Your task to perform on an android device: View the shopping cart on walmart. Add "macbook air" to the cart on walmart, then select checkout. Image 0: 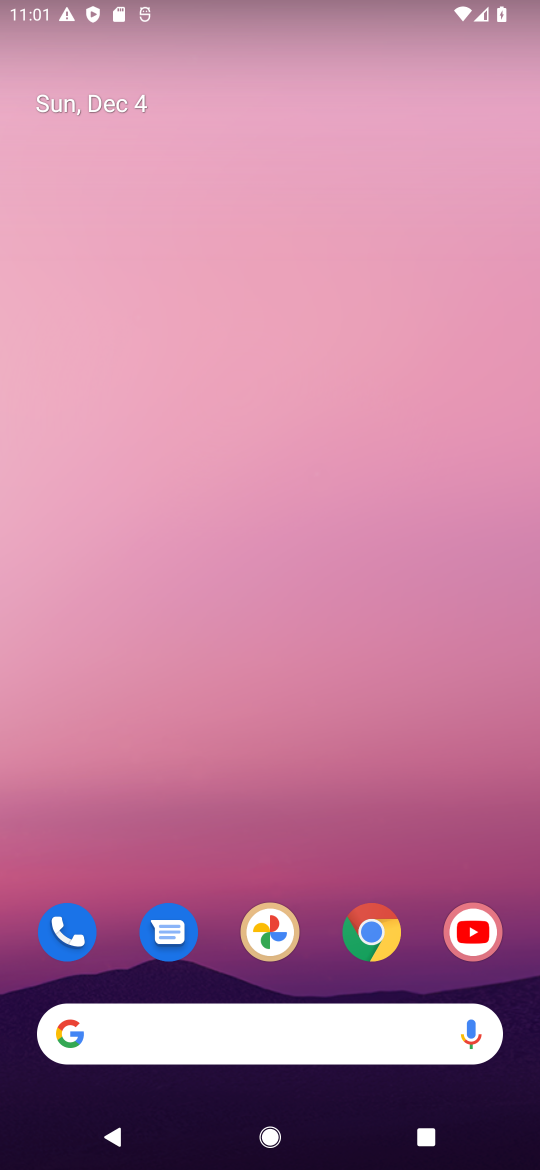
Step 0: click (372, 948)
Your task to perform on an android device: View the shopping cart on walmart. Add "macbook air" to the cart on walmart, then select checkout. Image 1: 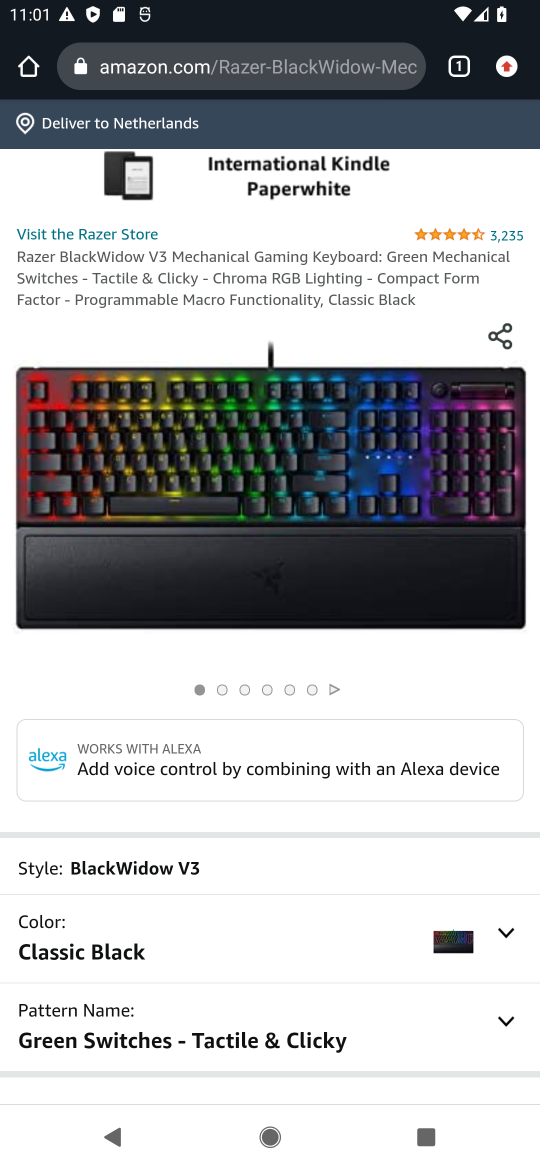
Step 1: click (256, 66)
Your task to perform on an android device: View the shopping cart on walmart. Add "macbook air" to the cart on walmart, then select checkout. Image 2: 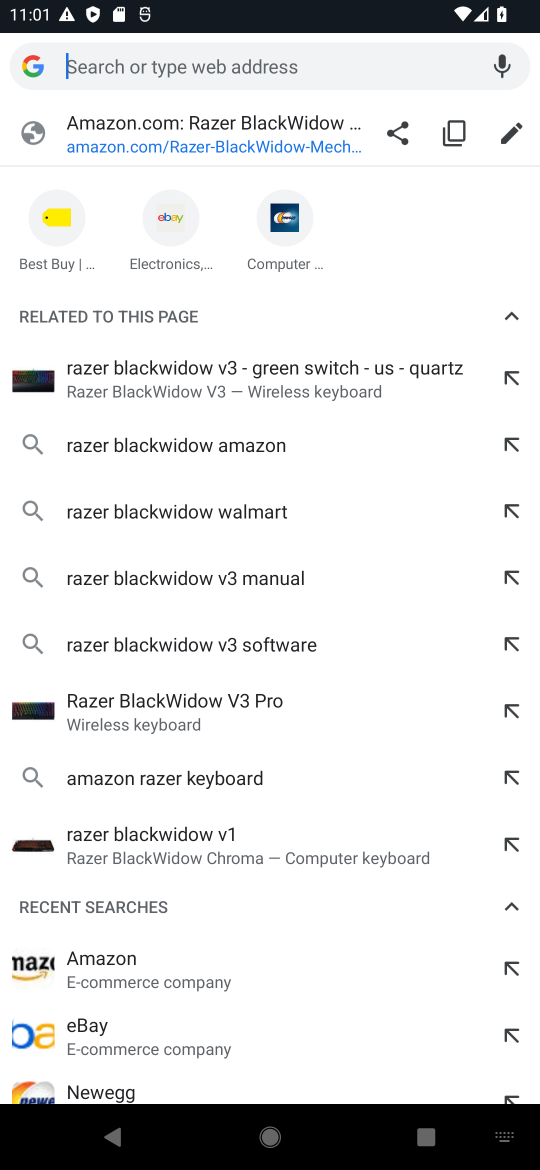
Step 2: drag from (190, 1035) to (218, 534)
Your task to perform on an android device: View the shopping cart on walmart. Add "macbook air" to the cart on walmart, then select checkout. Image 3: 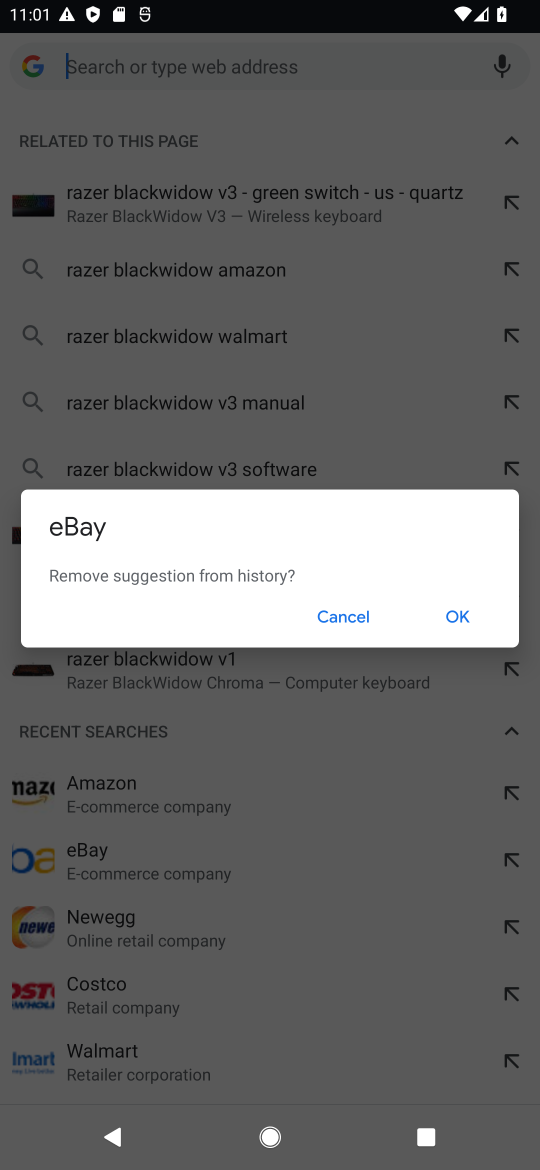
Step 3: click (166, 1055)
Your task to perform on an android device: View the shopping cart on walmart. Add "macbook air" to the cart on walmart, then select checkout. Image 4: 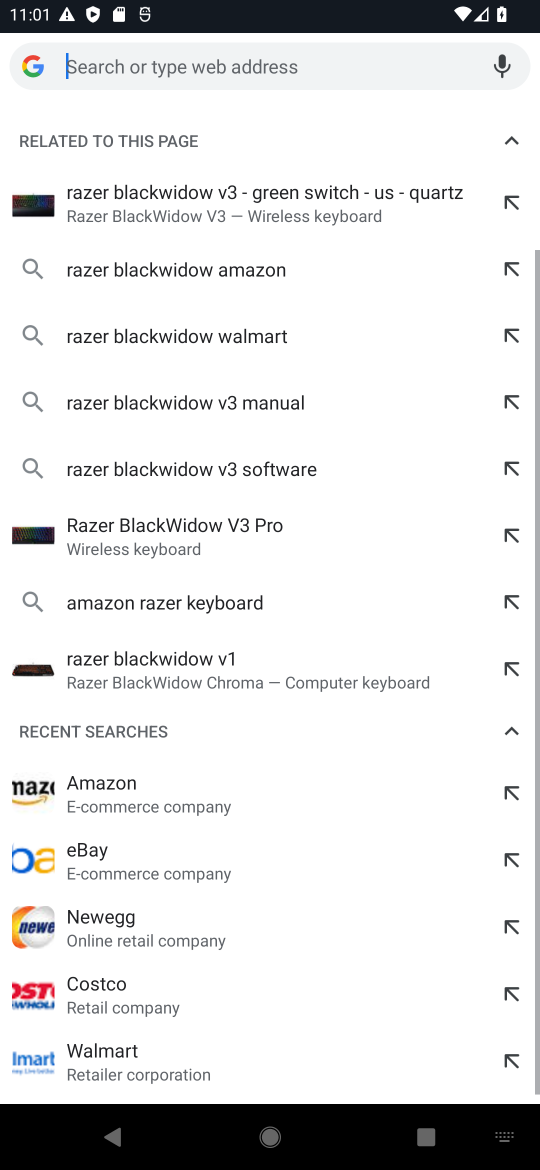
Step 4: click (166, 1055)
Your task to perform on an android device: View the shopping cart on walmart. Add "macbook air" to the cart on walmart, then select checkout. Image 5: 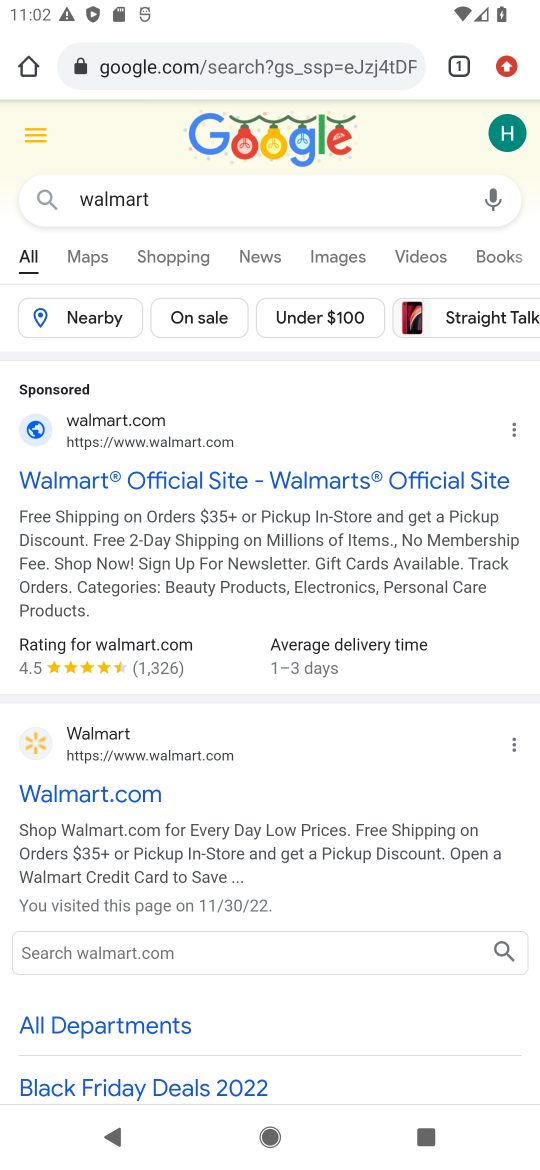
Step 5: click (233, 482)
Your task to perform on an android device: View the shopping cart on walmart. Add "macbook air" to the cart on walmart, then select checkout. Image 6: 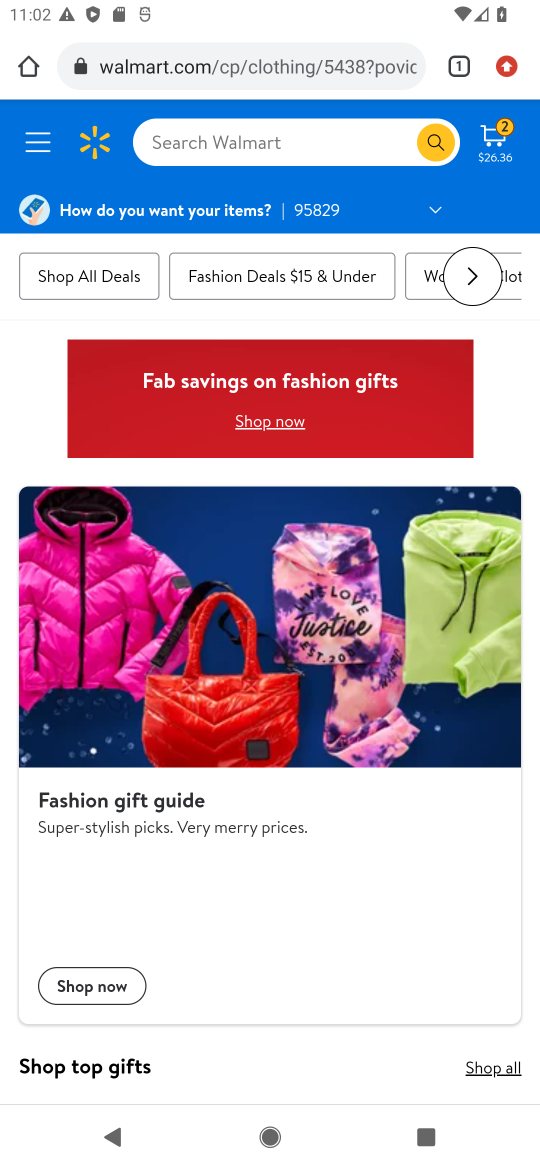
Step 6: click (326, 133)
Your task to perform on an android device: View the shopping cart on walmart. Add "macbook air" to the cart on walmart, then select checkout. Image 7: 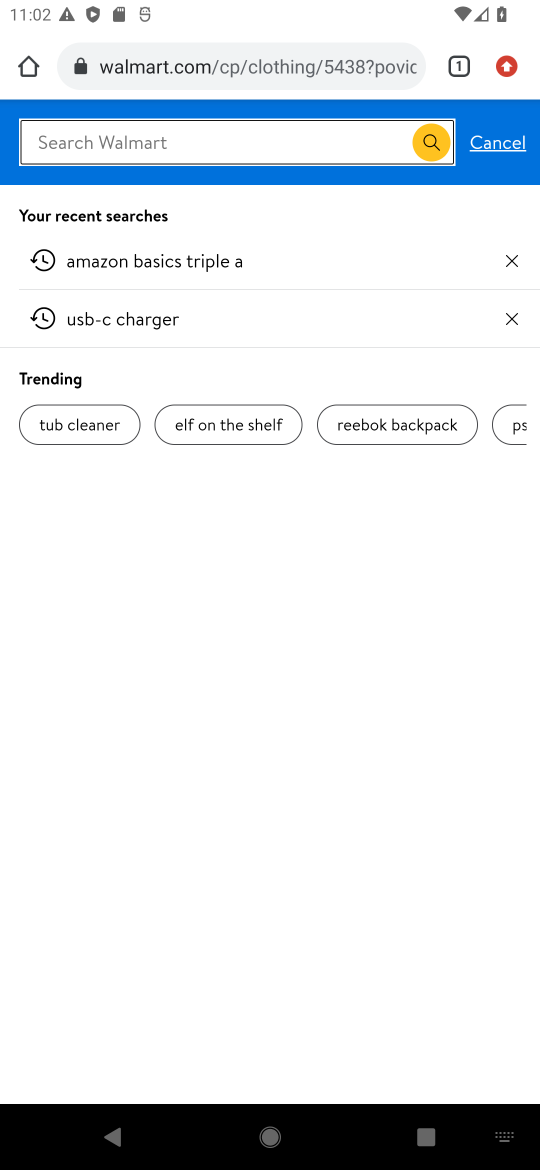
Step 7: type "macbook air"
Your task to perform on an android device: View the shopping cart on walmart. Add "macbook air" to the cart on walmart, then select checkout. Image 8: 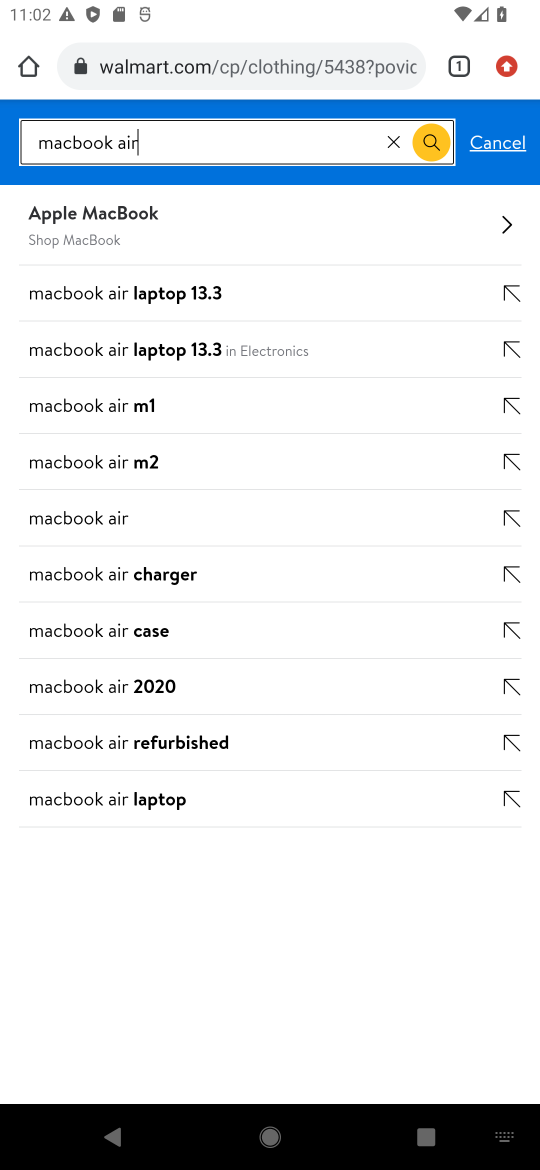
Step 8: click (84, 224)
Your task to perform on an android device: View the shopping cart on walmart. Add "macbook air" to the cart on walmart, then select checkout. Image 9: 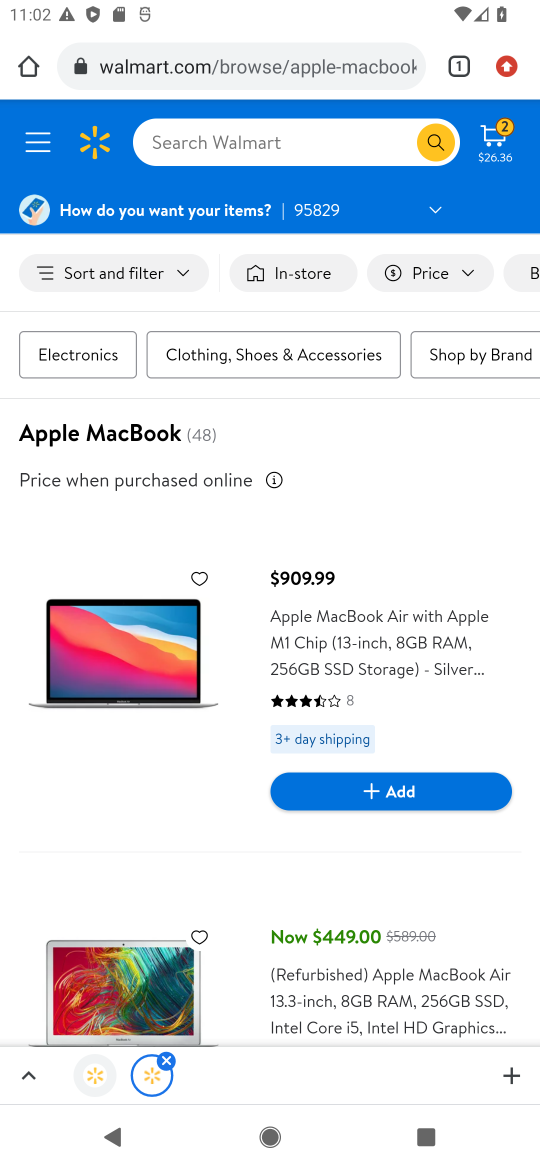
Step 9: click (388, 798)
Your task to perform on an android device: View the shopping cart on walmart. Add "macbook air" to the cart on walmart, then select checkout. Image 10: 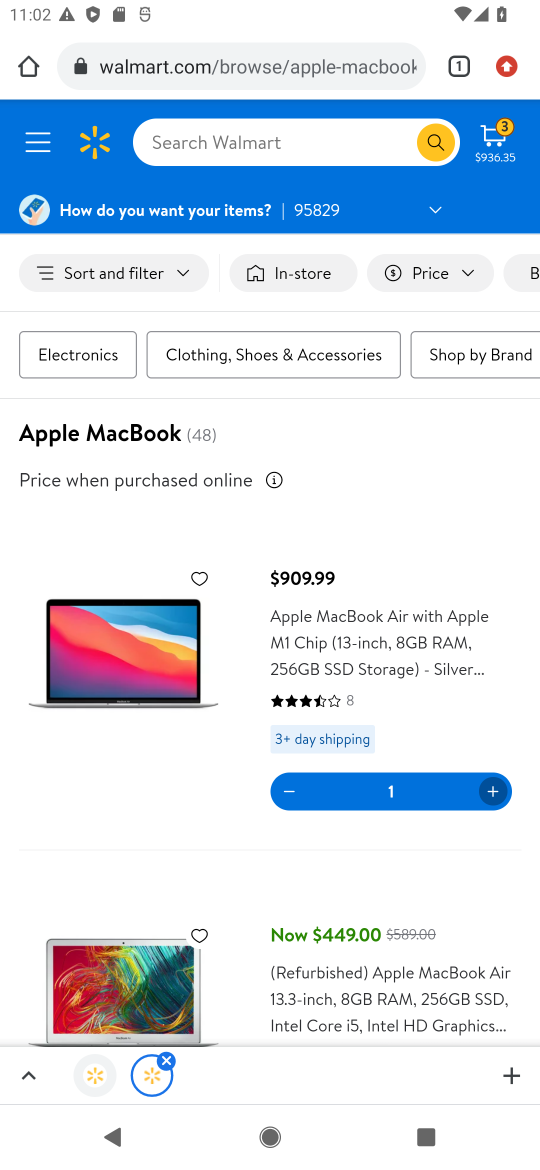
Step 10: click (496, 131)
Your task to perform on an android device: View the shopping cart on walmart. Add "macbook air" to the cart on walmart, then select checkout. Image 11: 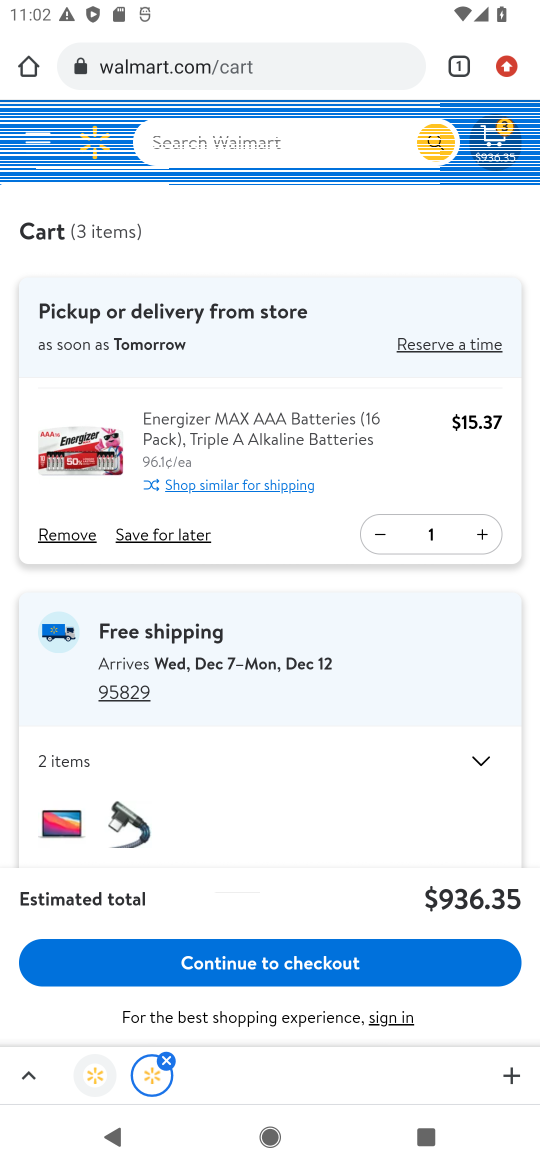
Step 11: click (327, 976)
Your task to perform on an android device: View the shopping cart on walmart. Add "macbook air" to the cart on walmart, then select checkout. Image 12: 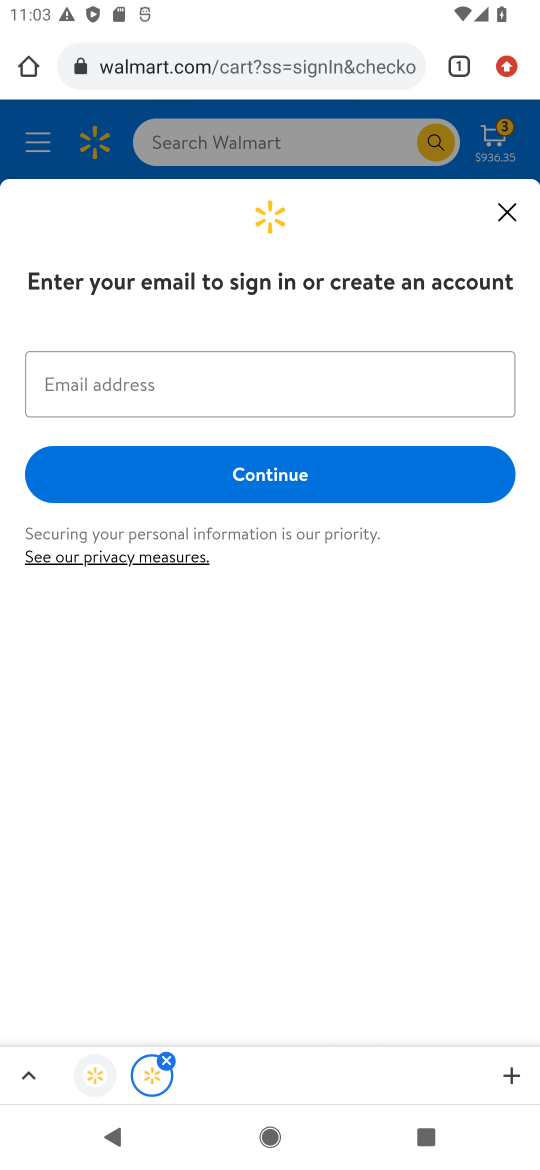
Step 12: task complete